Your task to perform on an android device: turn off priority inbox in the gmail app Image 0: 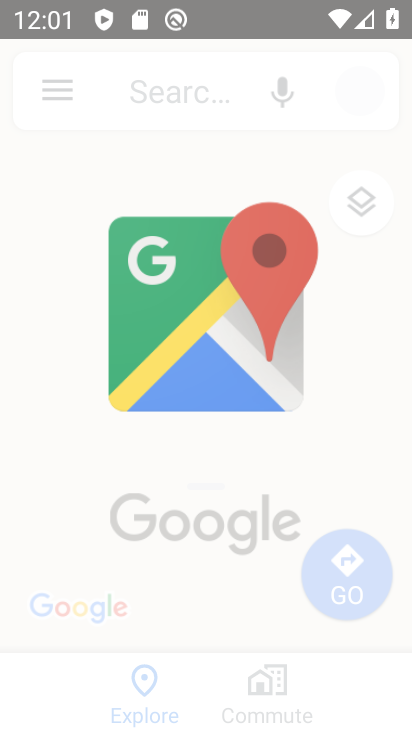
Step 0: drag from (203, 593) to (160, 208)
Your task to perform on an android device: turn off priority inbox in the gmail app Image 1: 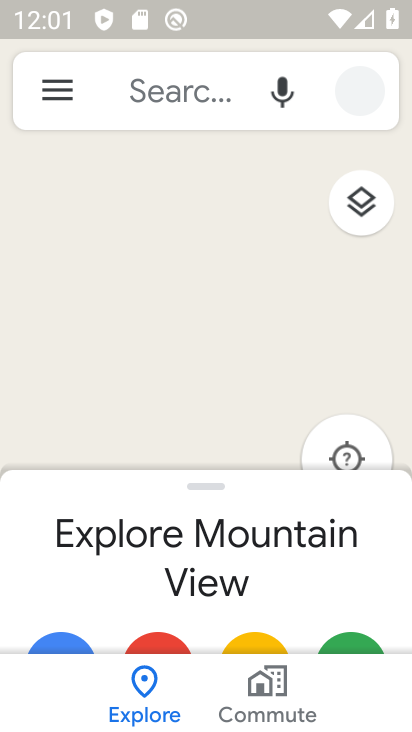
Step 1: press home button
Your task to perform on an android device: turn off priority inbox in the gmail app Image 2: 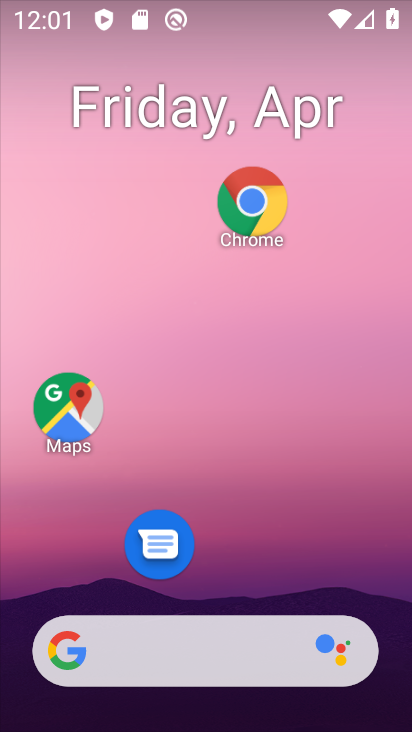
Step 2: drag from (211, 602) to (143, 51)
Your task to perform on an android device: turn off priority inbox in the gmail app Image 3: 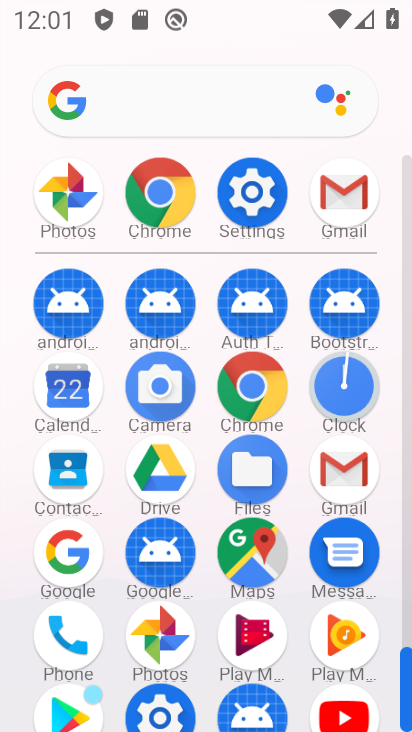
Step 3: click (344, 461)
Your task to perform on an android device: turn off priority inbox in the gmail app Image 4: 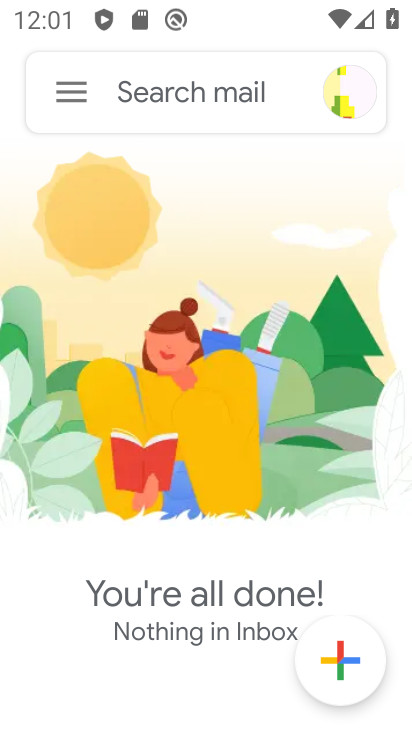
Step 4: click (54, 89)
Your task to perform on an android device: turn off priority inbox in the gmail app Image 5: 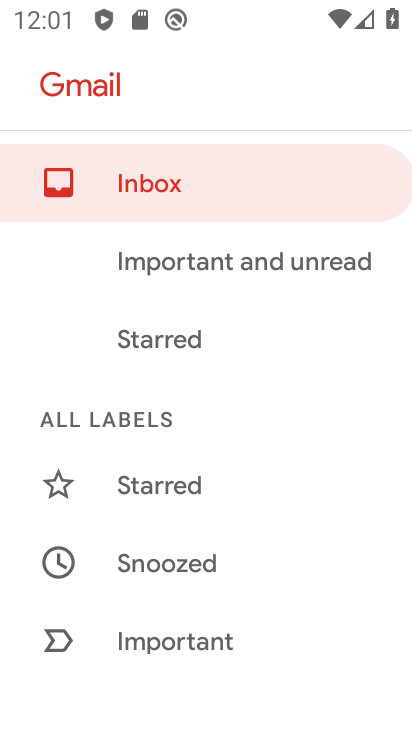
Step 5: drag from (178, 669) to (134, 186)
Your task to perform on an android device: turn off priority inbox in the gmail app Image 6: 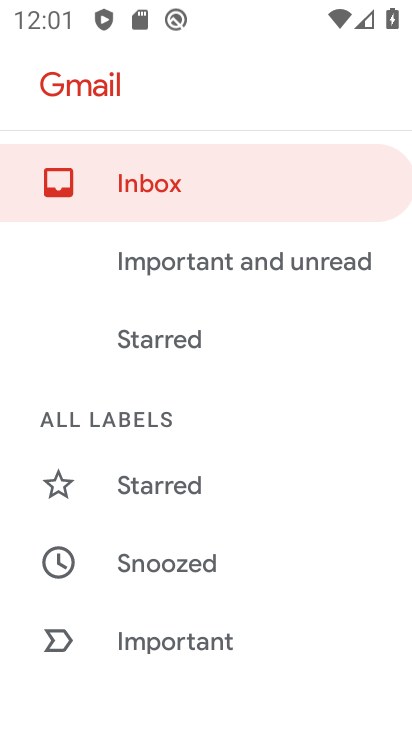
Step 6: drag from (204, 579) to (213, 38)
Your task to perform on an android device: turn off priority inbox in the gmail app Image 7: 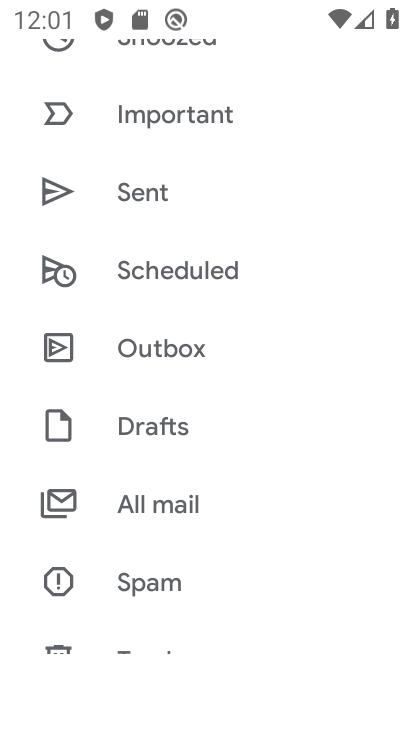
Step 7: drag from (131, 606) to (109, 179)
Your task to perform on an android device: turn off priority inbox in the gmail app Image 8: 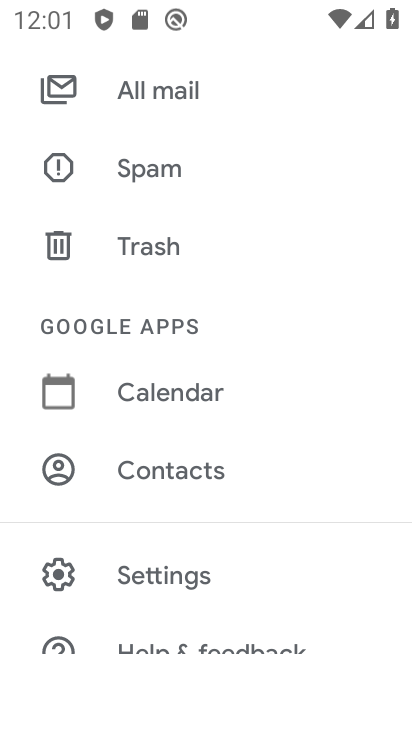
Step 8: click (141, 589)
Your task to perform on an android device: turn off priority inbox in the gmail app Image 9: 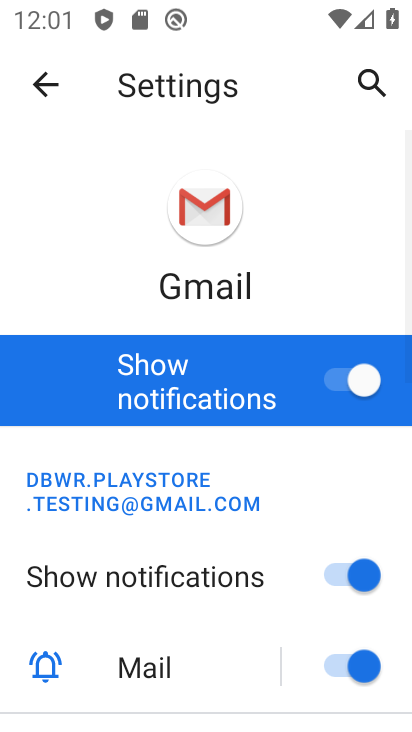
Step 9: click (38, 87)
Your task to perform on an android device: turn off priority inbox in the gmail app Image 10: 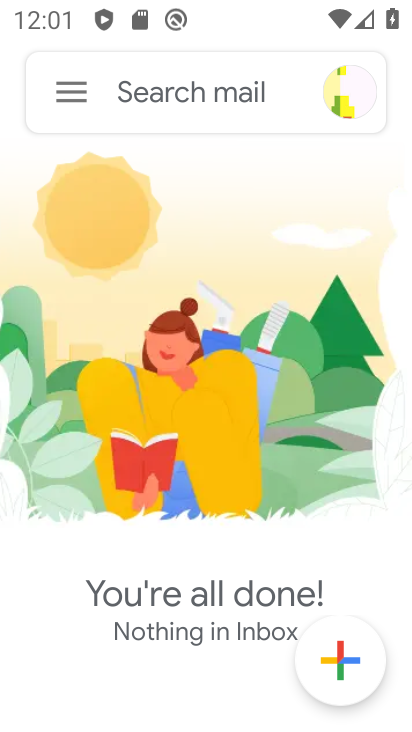
Step 10: click (77, 105)
Your task to perform on an android device: turn off priority inbox in the gmail app Image 11: 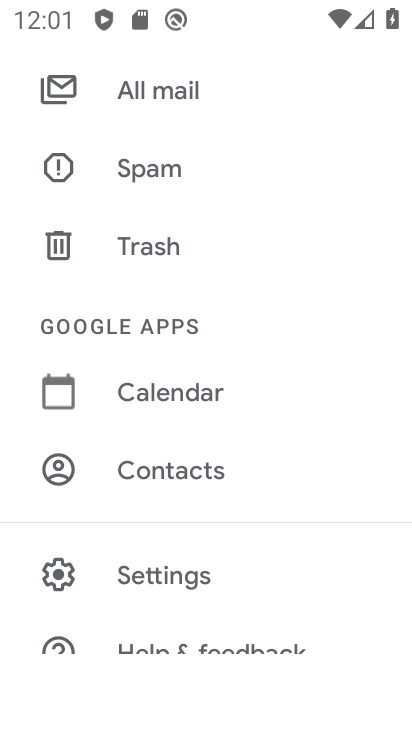
Step 11: click (168, 594)
Your task to perform on an android device: turn off priority inbox in the gmail app Image 12: 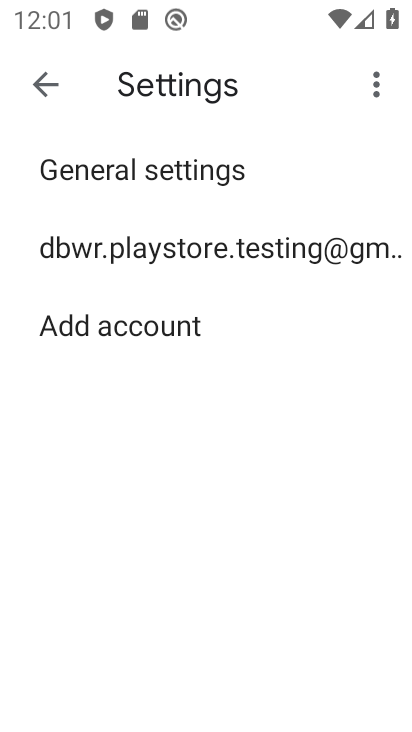
Step 12: click (162, 266)
Your task to perform on an android device: turn off priority inbox in the gmail app Image 13: 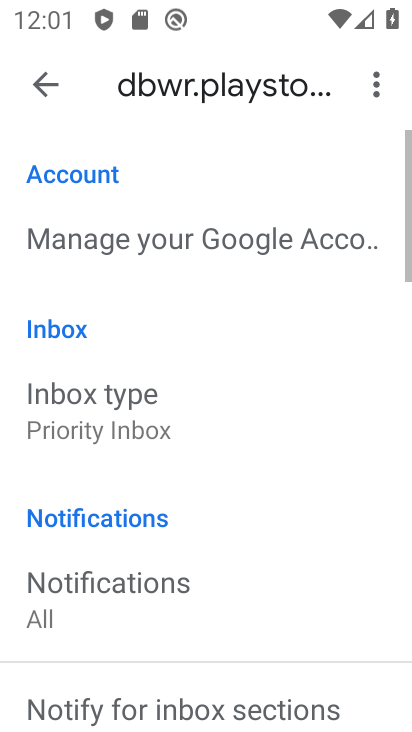
Step 13: click (146, 404)
Your task to perform on an android device: turn off priority inbox in the gmail app Image 14: 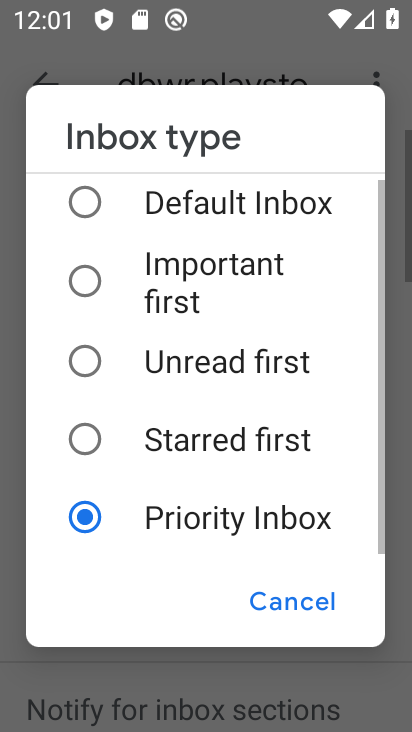
Step 14: click (157, 452)
Your task to perform on an android device: turn off priority inbox in the gmail app Image 15: 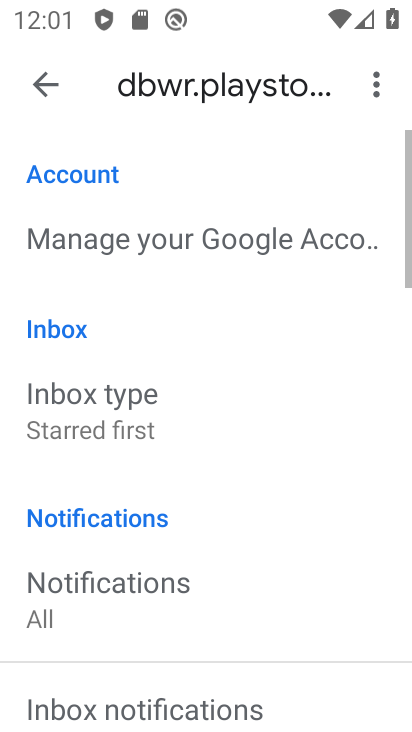
Step 15: task complete